Your task to perform on an android device: turn off sleep mode Image 0: 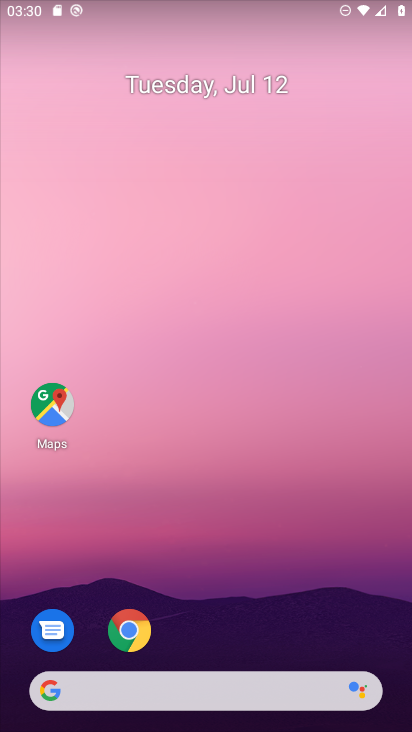
Step 0: drag from (332, 645) to (300, 139)
Your task to perform on an android device: turn off sleep mode Image 1: 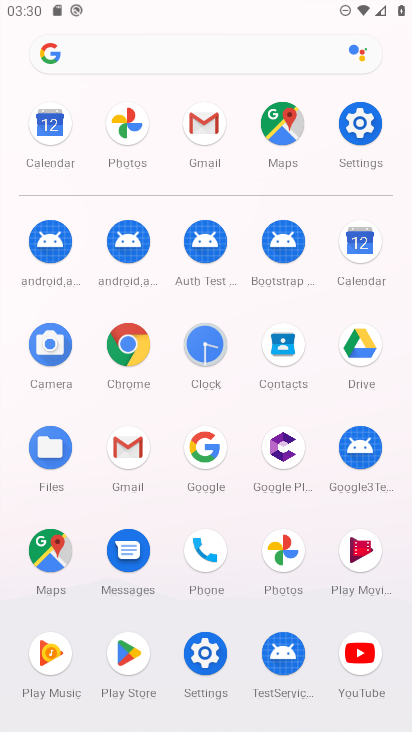
Step 1: click (205, 655)
Your task to perform on an android device: turn off sleep mode Image 2: 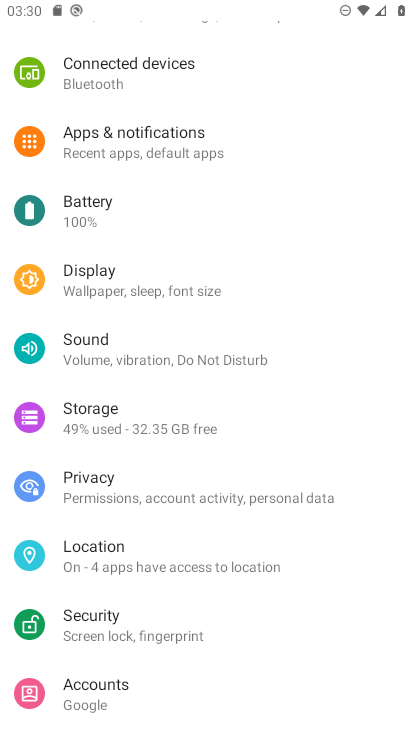
Step 2: click (85, 274)
Your task to perform on an android device: turn off sleep mode Image 3: 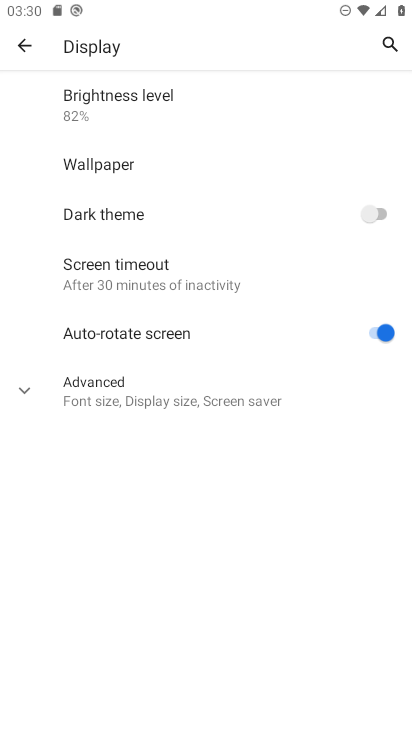
Step 3: click (26, 373)
Your task to perform on an android device: turn off sleep mode Image 4: 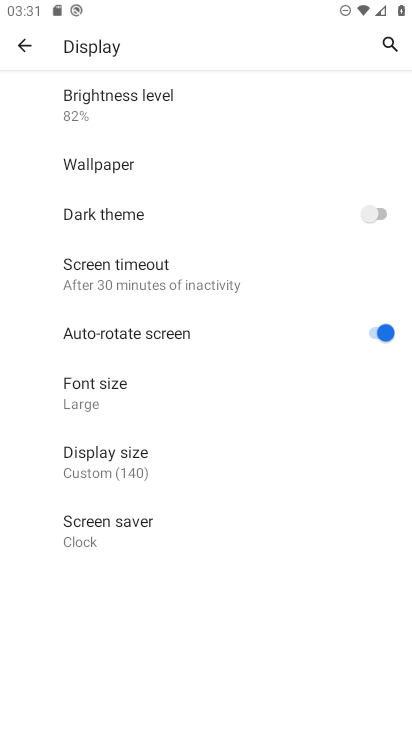
Step 4: task complete